Your task to perform on an android device: uninstall "Spotify: Music and Podcasts" Image 0: 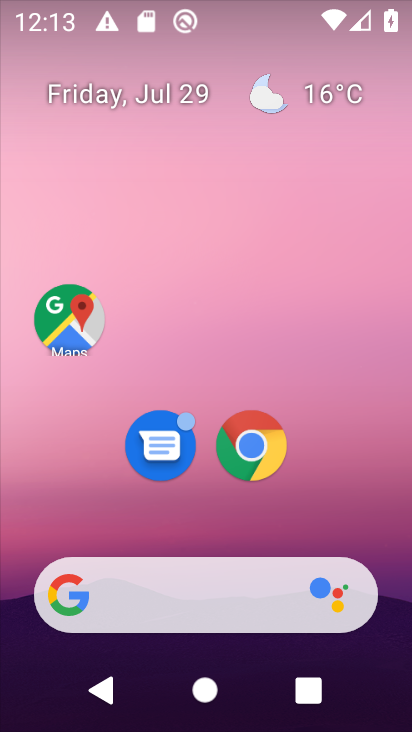
Step 0: press home button
Your task to perform on an android device: uninstall "Spotify: Music and Podcasts" Image 1: 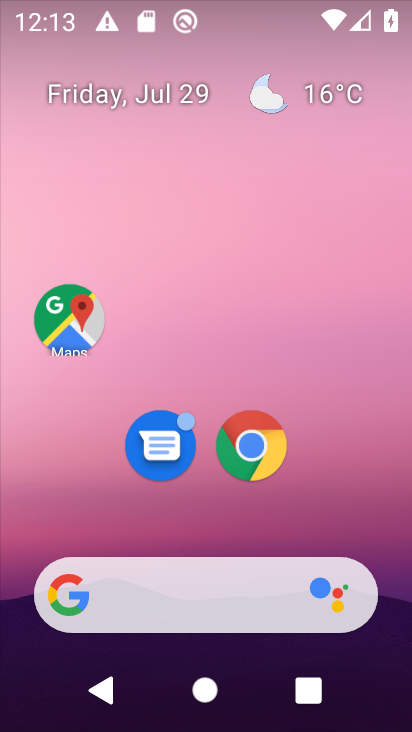
Step 1: press home button
Your task to perform on an android device: uninstall "Spotify: Music and Podcasts" Image 2: 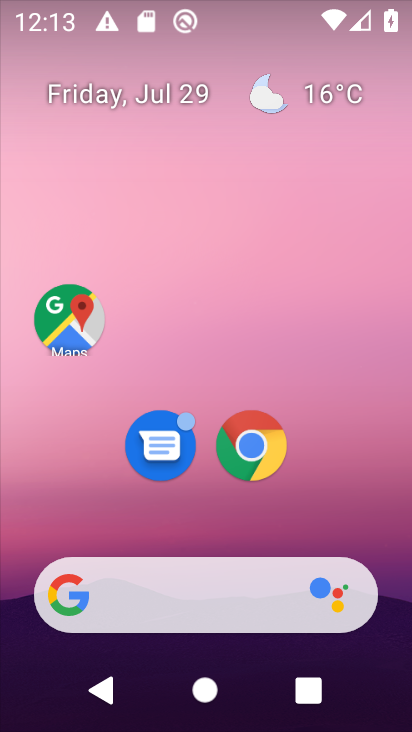
Step 2: drag from (341, 535) to (289, 327)
Your task to perform on an android device: uninstall "Spotify: Music and Podcasts" Image 3: 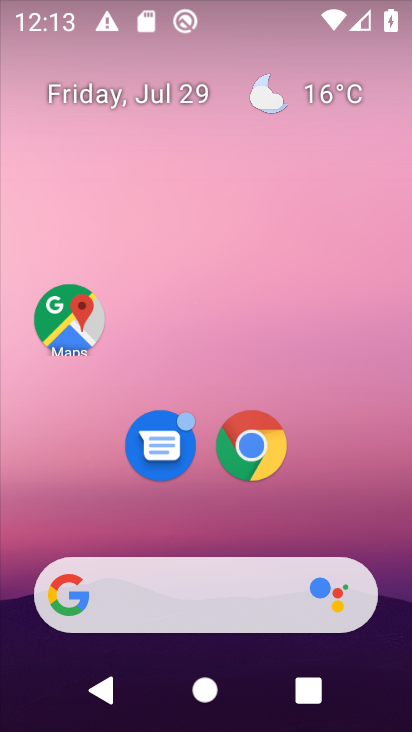
Step 3: drag from (341, 501) to (321, 81)
Your task to perform on an android device: uninstall "Spotify: Music and Podcasts" Image 4: 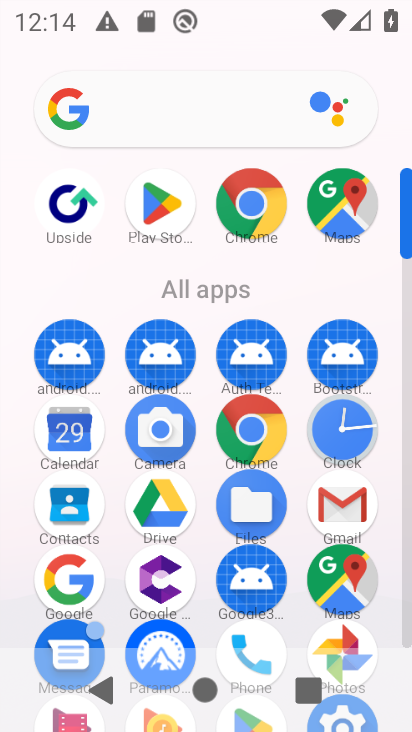
Step 4: click (167, 218)
Your task to perform on an android device: uninstall "Spotify: Music and Podcasts" Image 5: 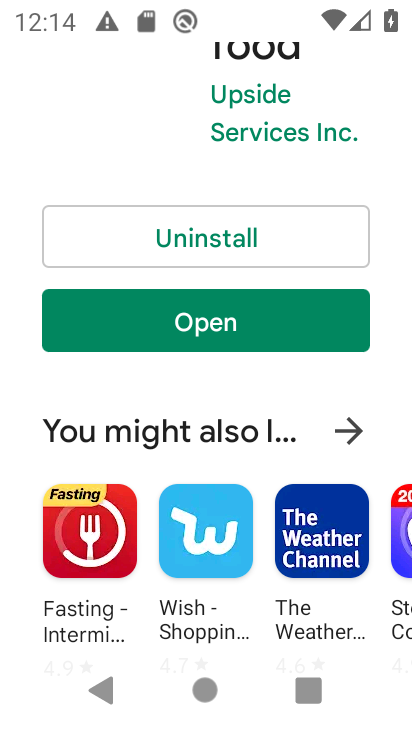
Step 5: drag from (267, 97) to (278, 702)
Your task to perform on an android device: uninstall "Spotify: Music and Podcasts" Image 6: 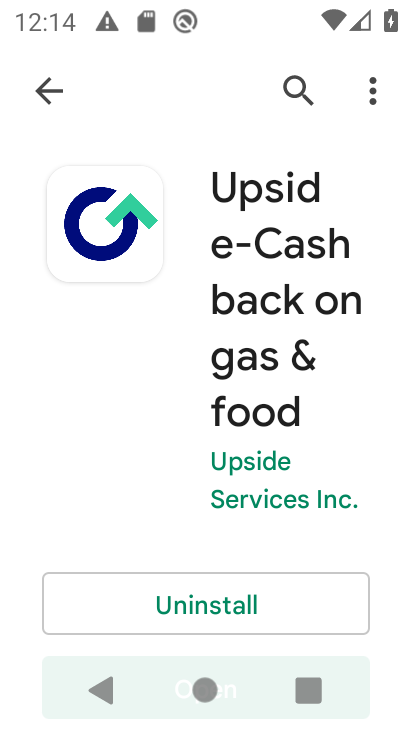
Step 6: click (315, 82)
Your task to perform on an android device: uninstall "Spotify: Music and Podcasts" Image 7: 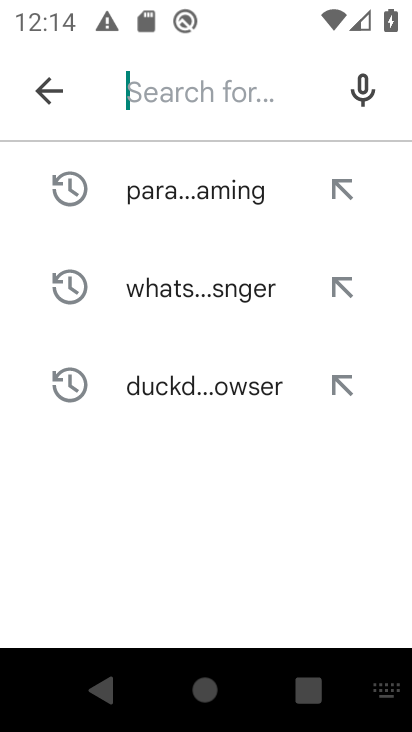
Step 7: type "Spotify: Music and Podcasts"
Your task to perform on an android device: uninstall "Spotify: Music and Podcasts" Image 8: 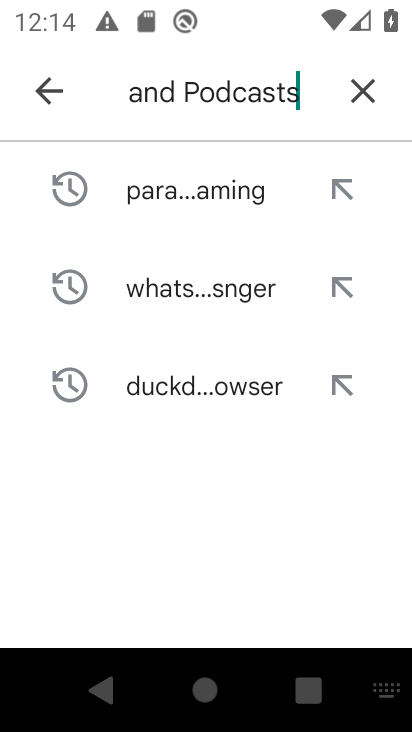
Step 8: type ""
Your task to perform on an android device: uninstall "Spotify: Music and Podcasts" Image 9: 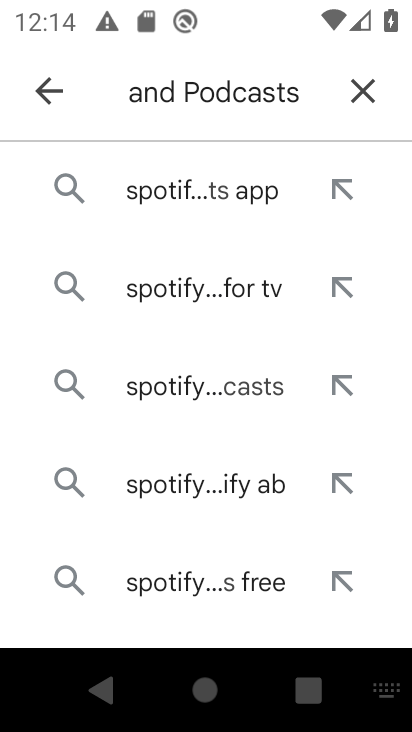
Step 9: type ""
Your task to perform on an android device: uninstall "Spotify: Music and Podcasts" Image 10: 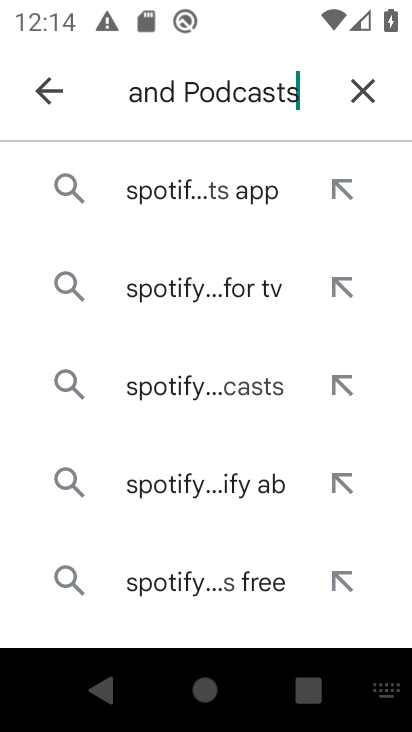
Step 10: click (235, 188)
Your task to perform on an android device: uninstall "Spotify: Music and Podcasts" Image 11: 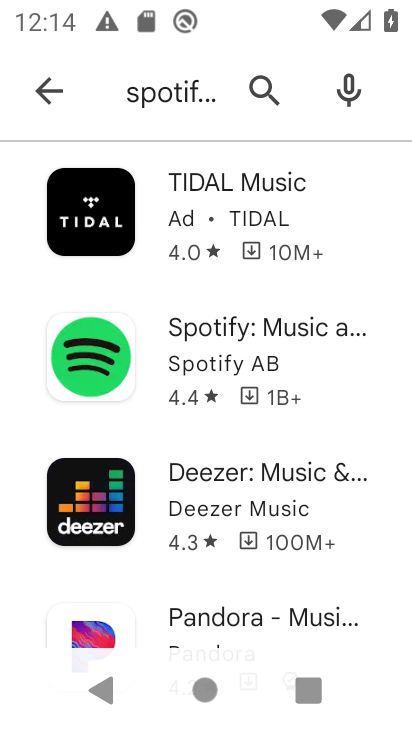
Step 11: click (219, 326)
Your task to perform on an android device: uninstall "Spotify: Music and Podcasts" Image 12: 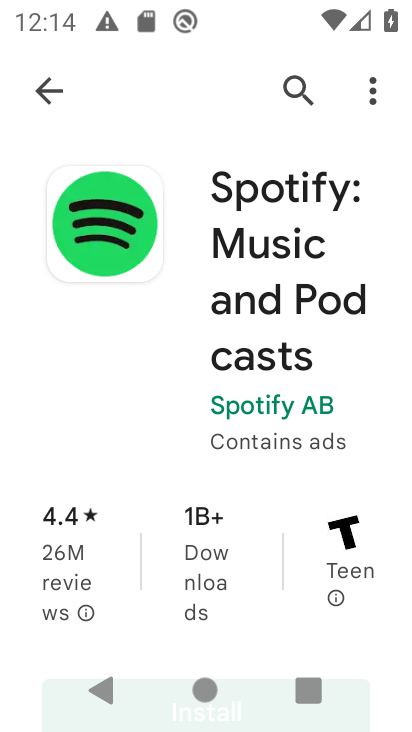
Step 12: task complete